Your task to perform on an android device: Open Yahoo.com Image 0: 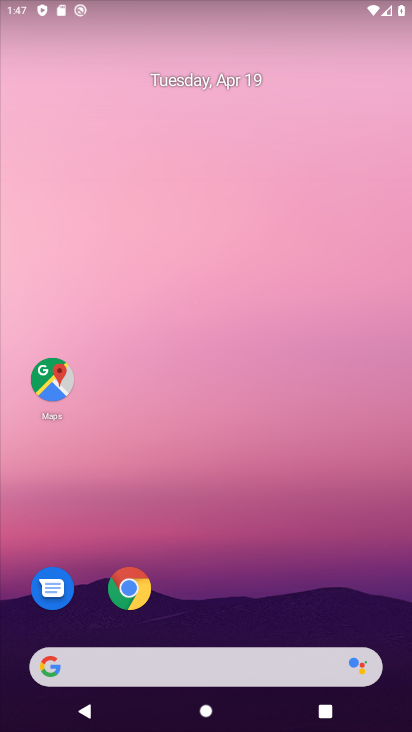
Step 0: drag from (286, 161) to (222, 407)
Your task to perform on an android device: Open Yahoo.com Image 1: 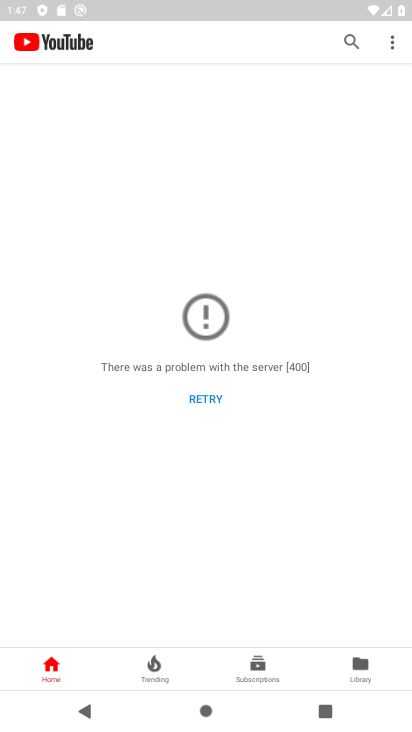
Step 1: press home button
Your task to perform on an android device: Open Yahoo.com Image 2: 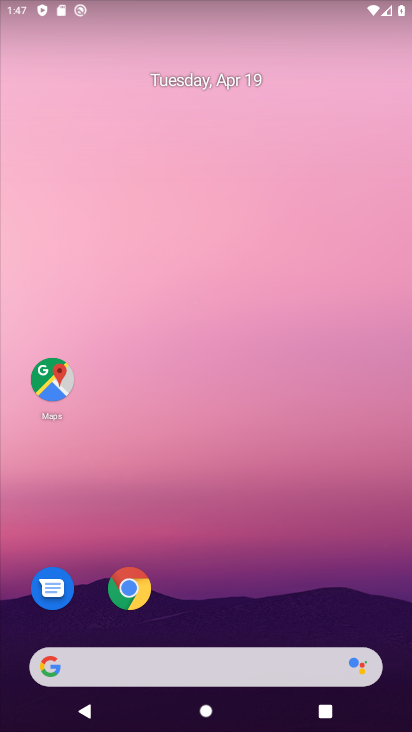
Step 2: click (116, 594)
Your task to perform on an android device: Open Yahoo.com Image 3: 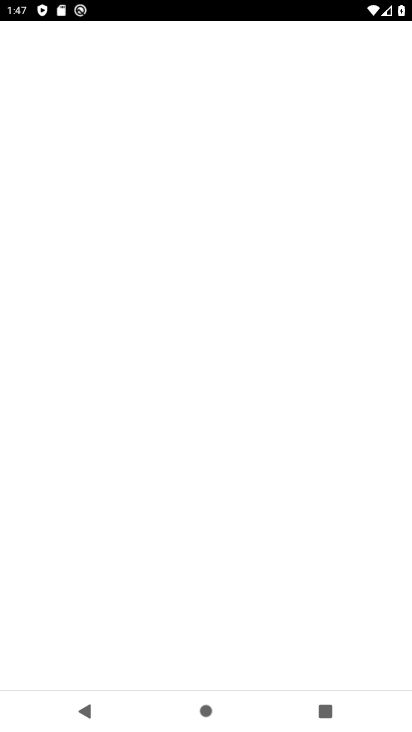
Step 3: click (126, 602)
Your task to perform on an android device: Open Yahoo.com Image 4: 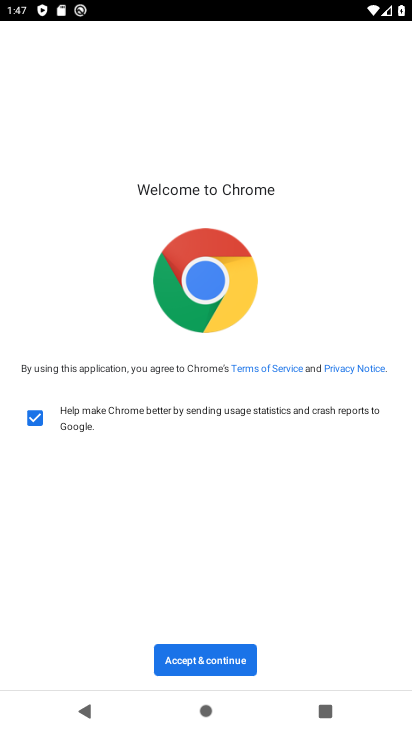
Step 4: click (223, 650)
Your task to perform on an android device: Open Yahoo.com Image 5: 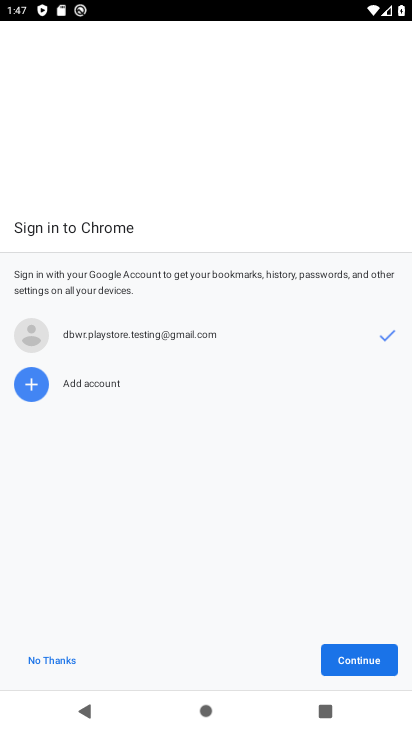
Step 5: click (343, 650)
Your task to perform on an android device: Open Yahoo.com Image 6: 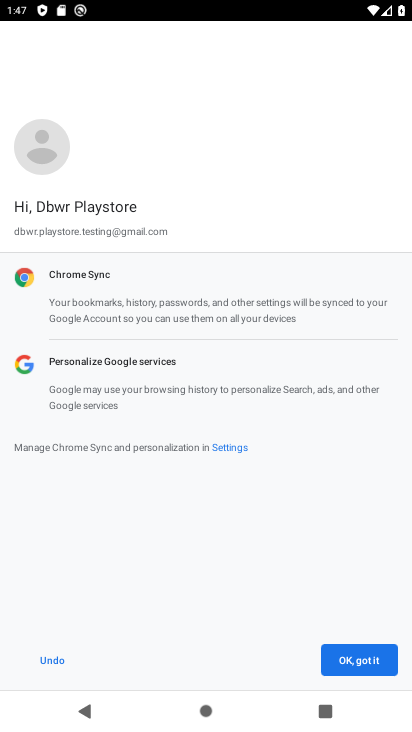
Step 6: click (372, 665)
Your task to perform on an android device: Open Yahoo.com Image 7: 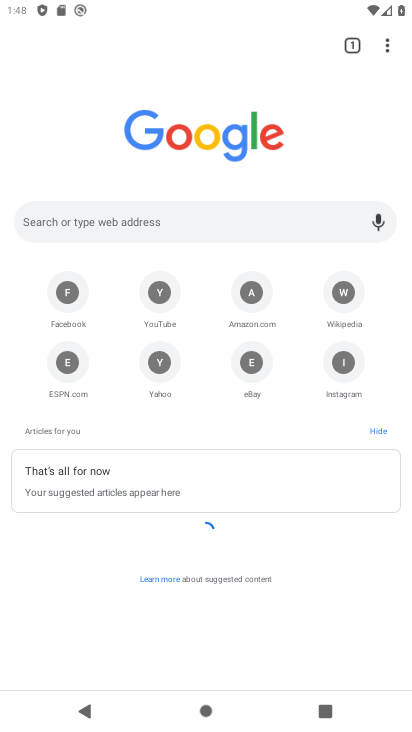
Step 7: click (134, 227)
Your task to perform on an android device: Open Yahoo.com Image 8: 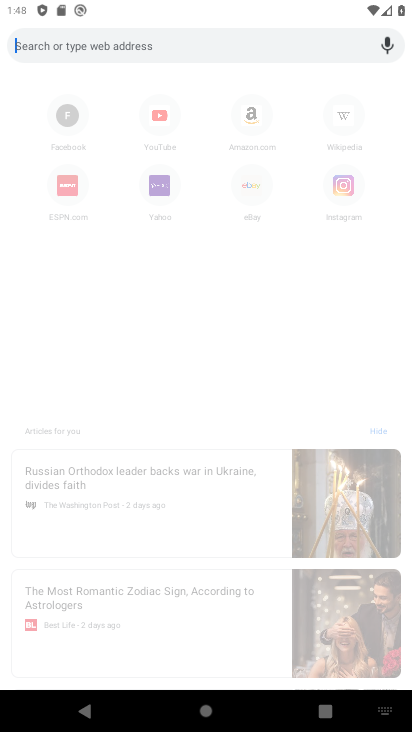
Step 8: type "yahoo.com"
Your task to perform on an android device: Open Yahoo.com Image 9: 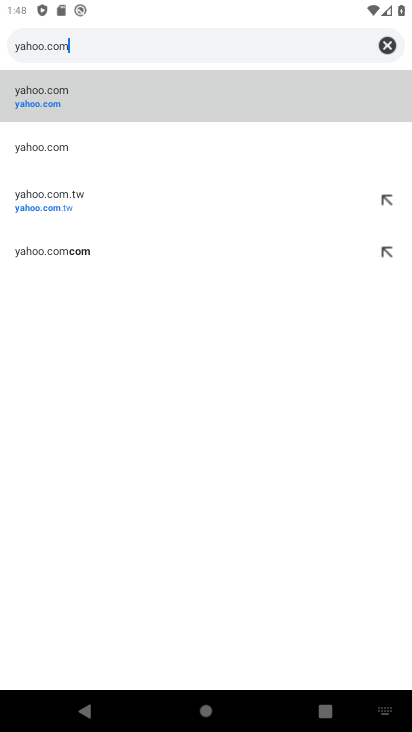
Step 9: click (81, 115)
Your task to perform on an android device: Open Yahoo.com Image 10: 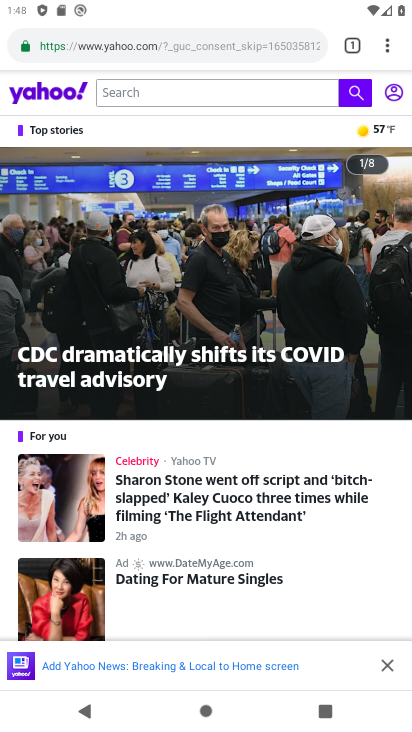
Step 10: task complete